Your task to perform on an android device: turn on the 12-hour format for clock Image 0: 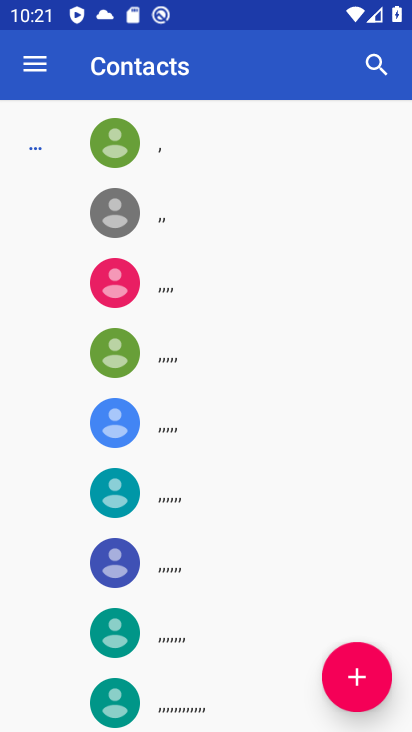
Step 0: press home button
Your task to perform on an android device: turn on the 12-hour format for clock Image 1: 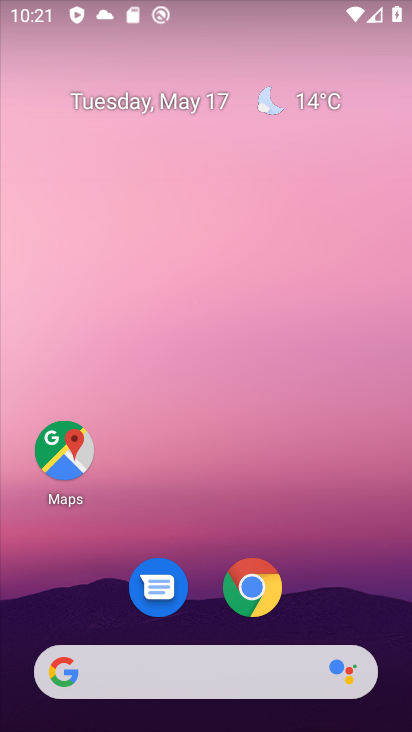
Step 1: drag from (276, 515) to (318, 73)
Your task to perform on an android device: turn on the 12-hour format for clock Image 2: 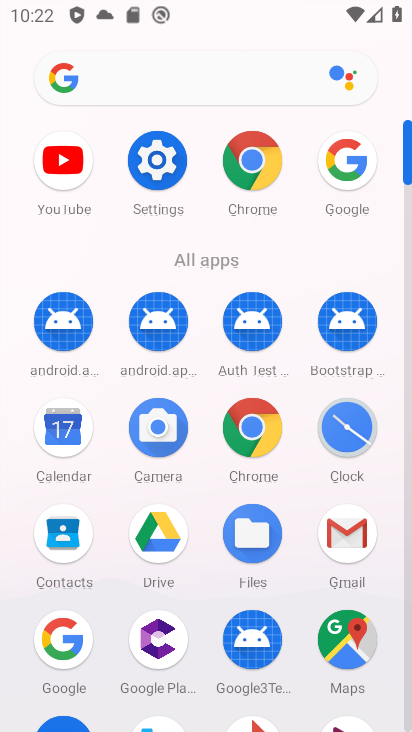
Step 2: click (338, 433)
Your task to perform on an android device: turn on the 12-hour format for clock Image 3: 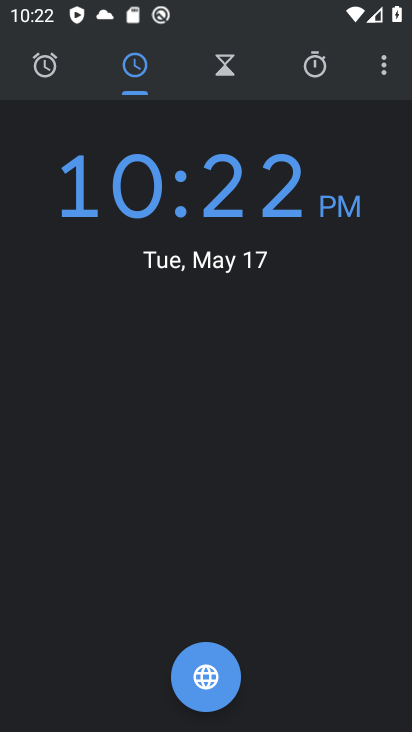
Step 3: click (385, 69)
Your task to perform on an android device: turn on the 12-hour format for clock Image 4: 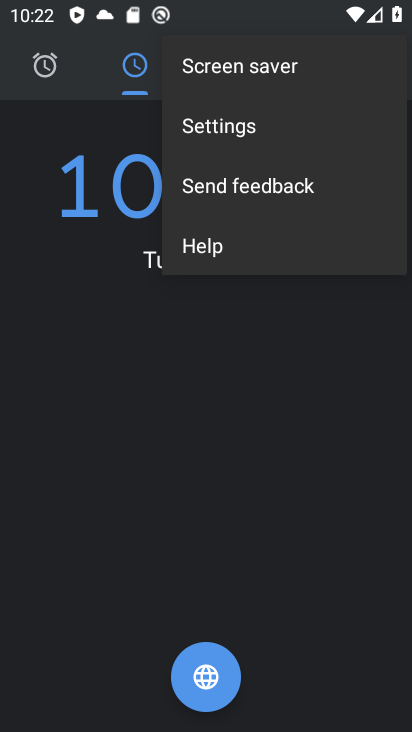
Step 4: click (273, 133)
Your task to perform on an android device: turn on the 12-hour format for clock Image 5: 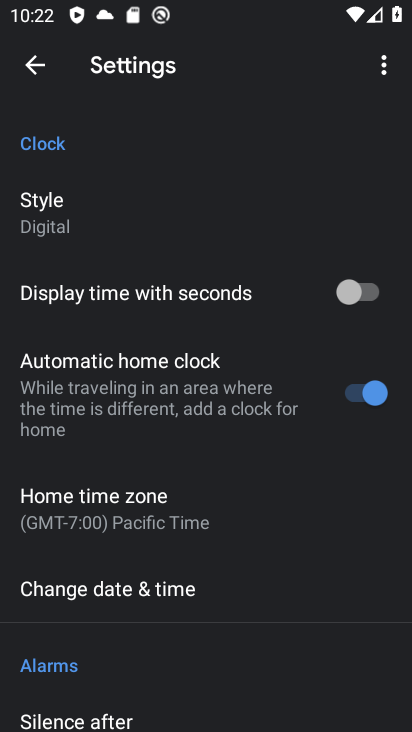
Step 5: click (185, 585)
Your task to perform on an android device: turn on the 12-hour format for clock Image 6: 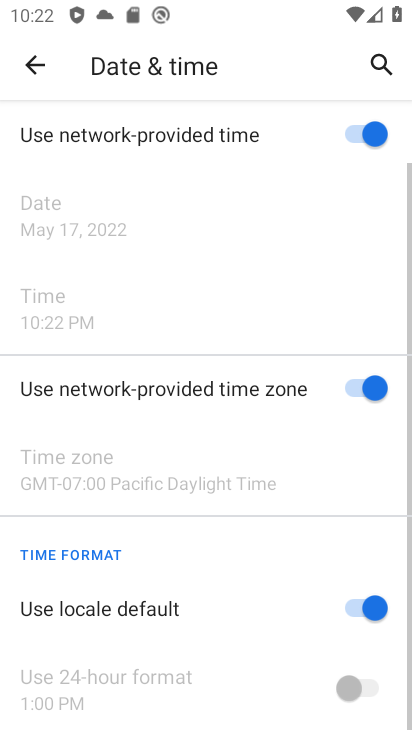
Step 6: task complete